Your task to perform on an android device: check android version Image 0: 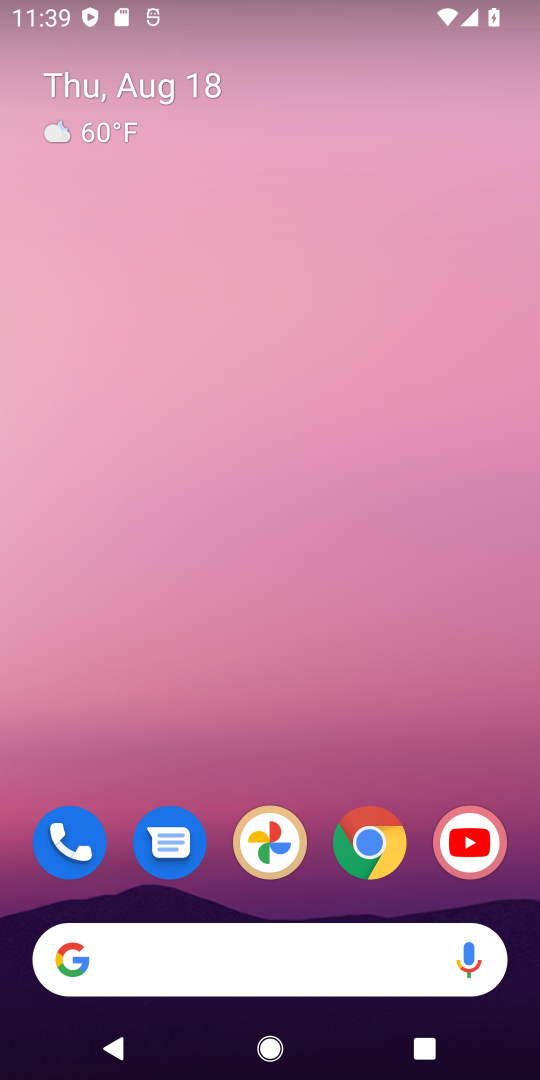
Step 0: drag from (306, 901) to (314, 150)
Your task to perform on an android device: check android version Image 1: 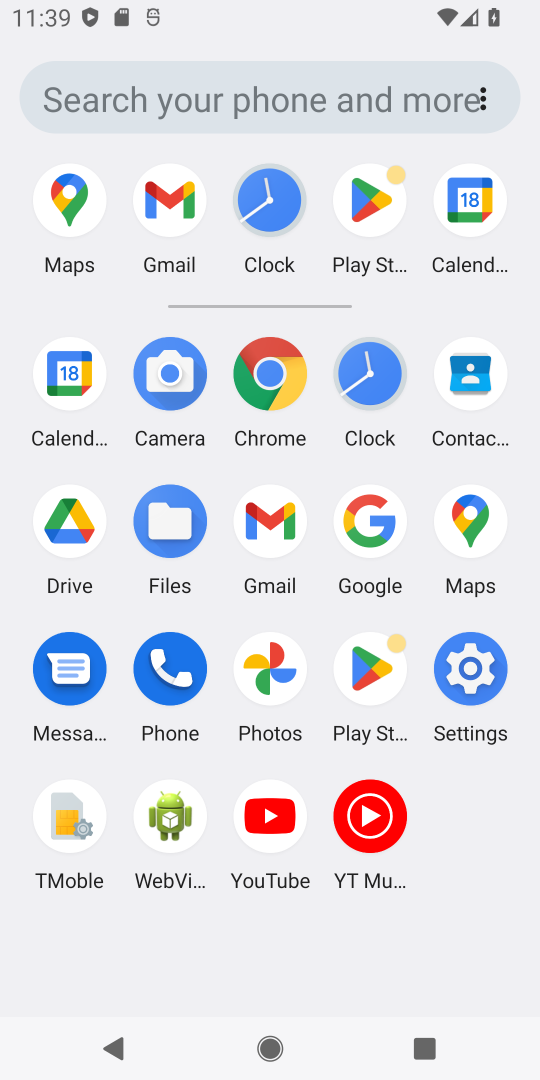
Step 1: click (458, 664)
Your task to perform on an android device: check android version Image 2: 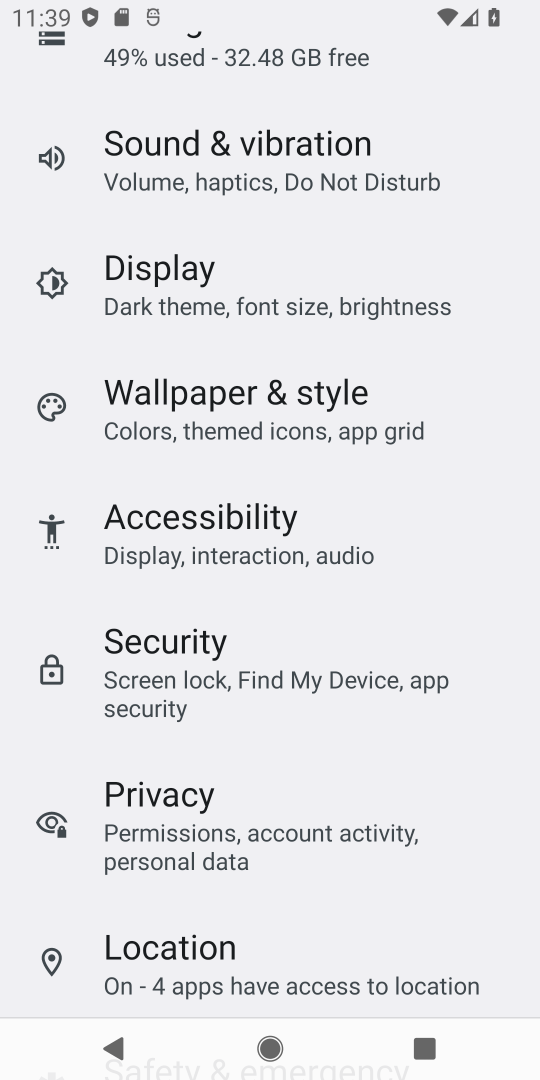
Step 2: task complete